Your task to perform on an android device: stop showing notifications on the lock screen Image 0: 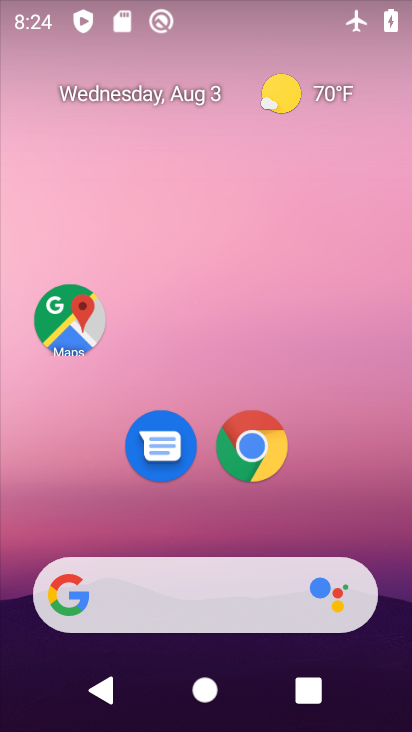
Step 0: drag from (391, 712) to (308, 207)
Your task to perform on an android device: stop showing notifications on the lock screen Image 1: 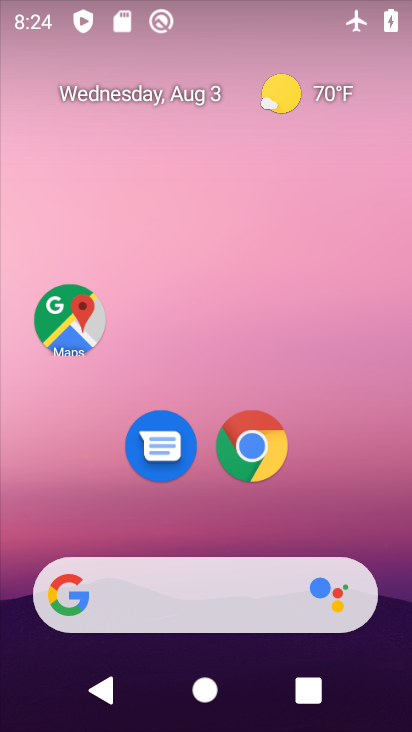
Step 1: drag from (385, 667) to (277, 102)
Your task to perform on an android device: stop showing notifications on the lock screen Image 2: 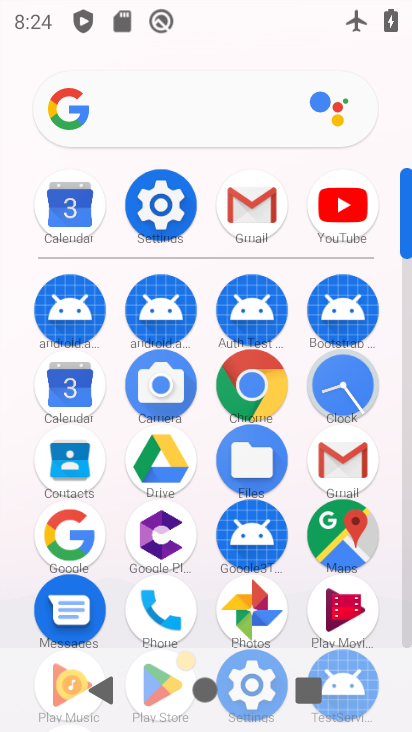
Step 2: click (163, 209)
Your task to perform on an android device: stop showing notifications on the lock screen Image 3: 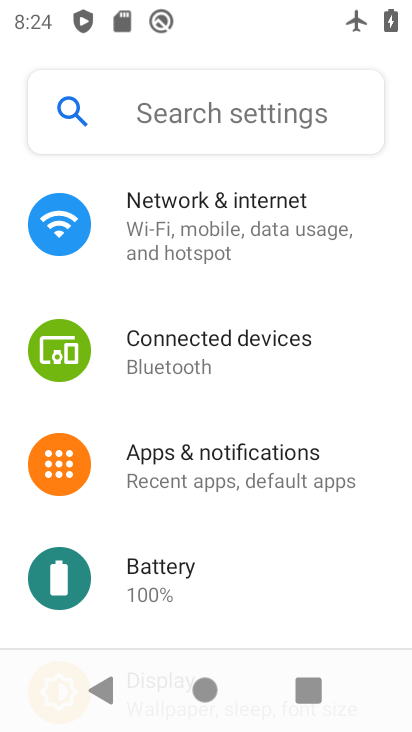
Step 3: click (172, 453)
Your task to perform on an android device: stop showing notifications on the lock screen Image 4: 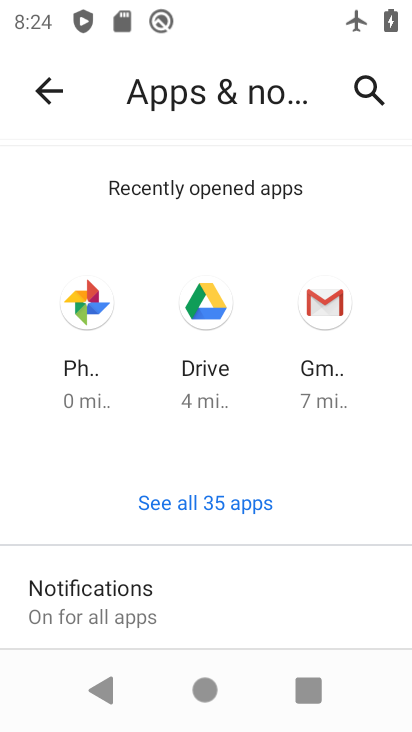
Step 4: click (146, 596)
Your task to perform on an android device: stop showing notifications on the lock screen Image 5: 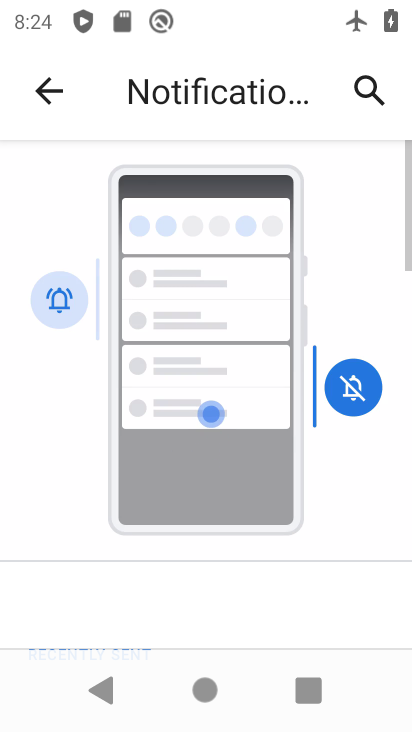
Step 5: drag from (253, 617) to (244, 102)
Your task to perform on an android device: stop showing notifications on the lock screen Image 6: 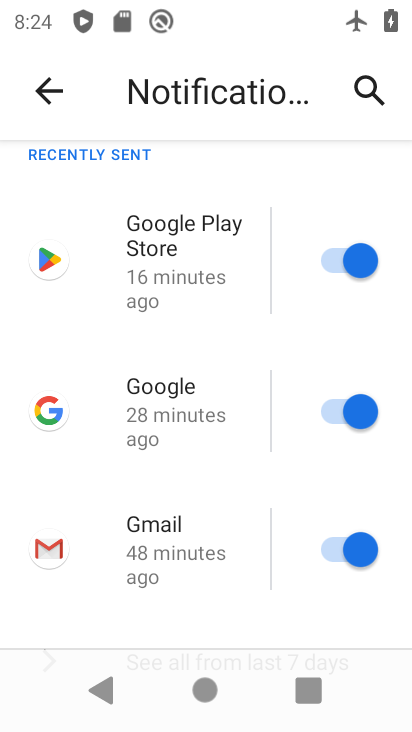
Step 6: drag from (229, 575) to (223, 255)
Your task to perform on an android device: stop showing notifications on the lock screen Image 7: 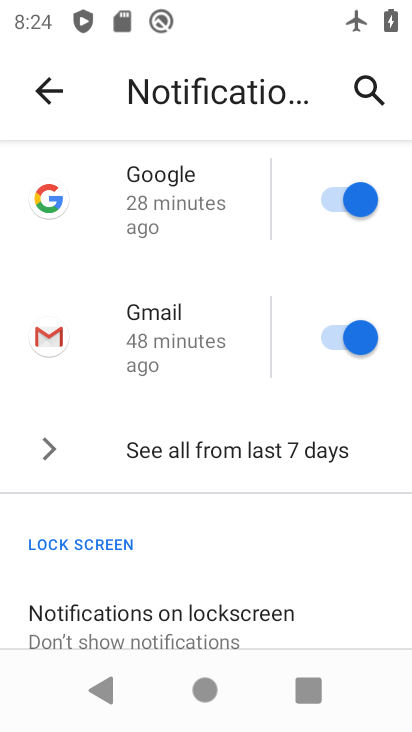
Step 7: click (93, 625)
Your task to perform on an android device: stop showing notifications on the lock screen Image 8: 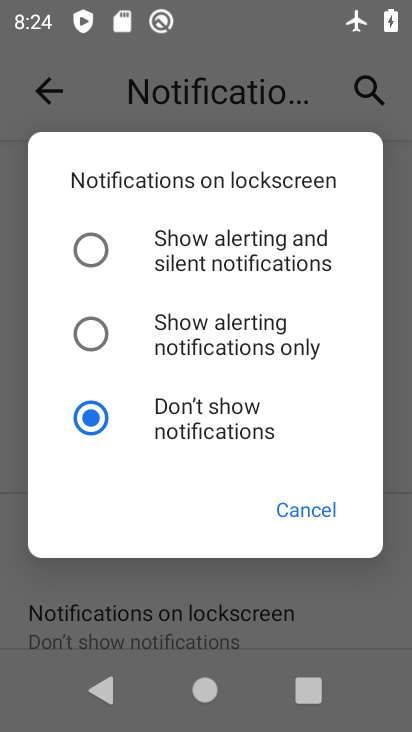
Step 8: task complete